Your task to perform on an android device: toggle show notifications on the lock screen Image 0: 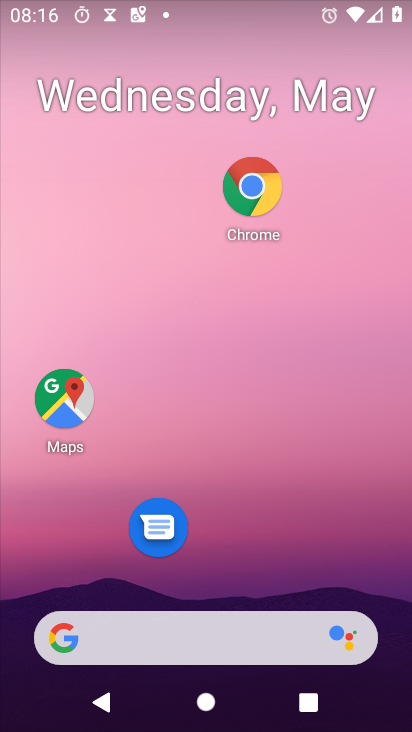
Step 0: drag from (286, 536) to (403, 55)
Your task to perform on an android device: toggle show notifications on the lock screen Image 1: 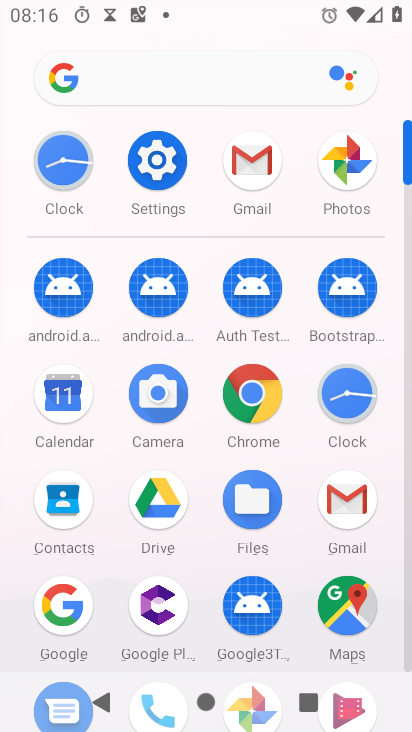
Step 1: click (155, 163)
Your task to perform on an android device: toggle show notifications on the lock screen Image 2: 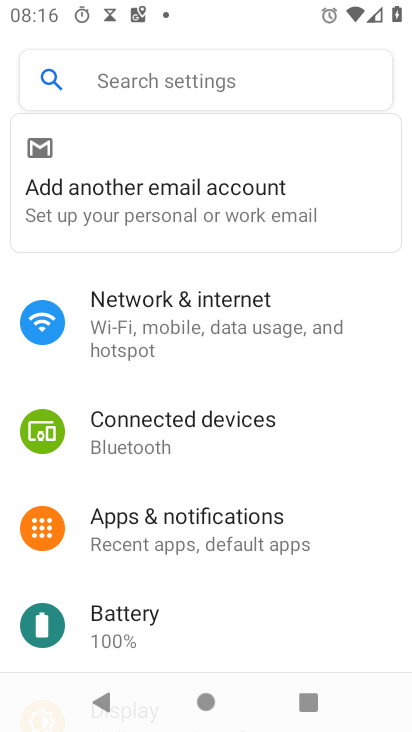
Step 2: click (198, 525)
Your task to perform on an android device: toggle show notifications on the lock screen Image 3: 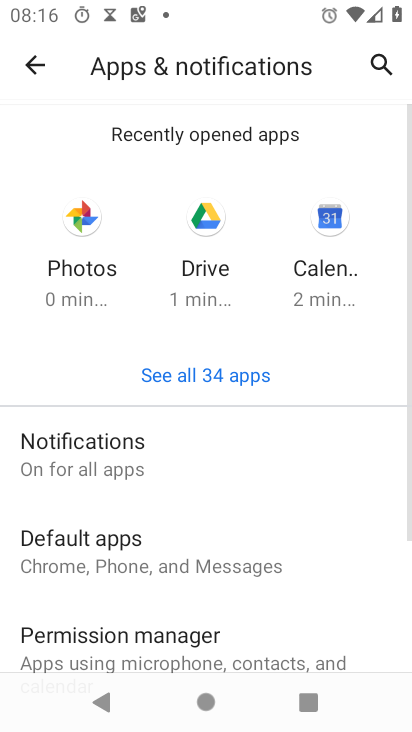
Step 3: click (90, 445)
Your task to perform on an android device: toggle show notifications on the lock screen Image 4: 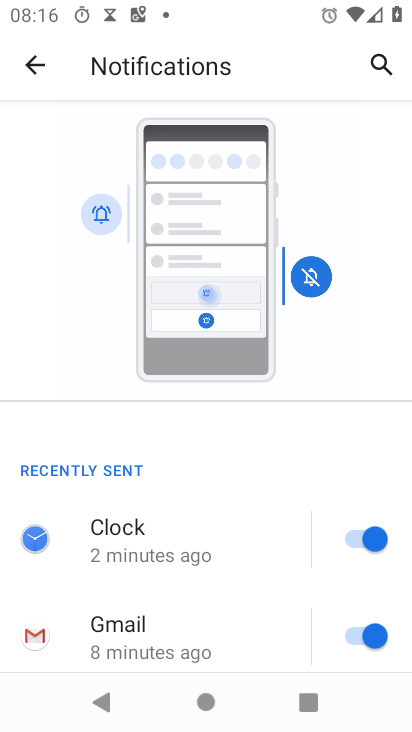
Step 4: drag from (266, 547) to (337, 184)
Your task to perform on an android device: toggle show notifications on the lock screen Image 5: 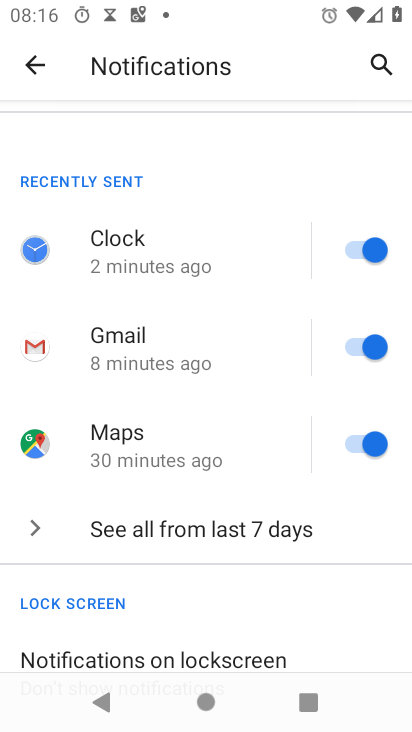
Step 5: drag from (275, 606) to (283, 204)
Your task to perform on an android device: toggle show notifications on the lock screen Image 6: 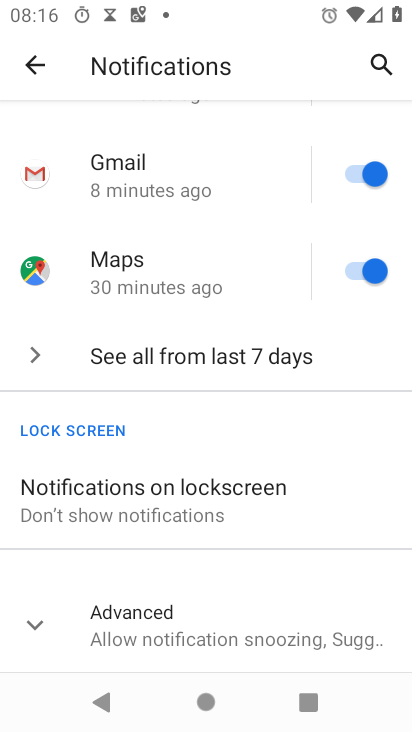
Step 6: click (106, 510)
Your task to perform on an android device: toggle show notifications on the lock screen Image 7: 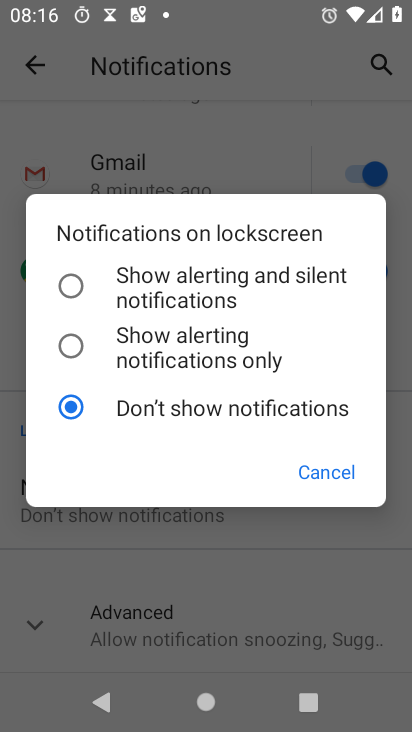
Step 7: click (128, 331)
Your task to perform on an android device: toggle show notifications on the lock screen Image 8: 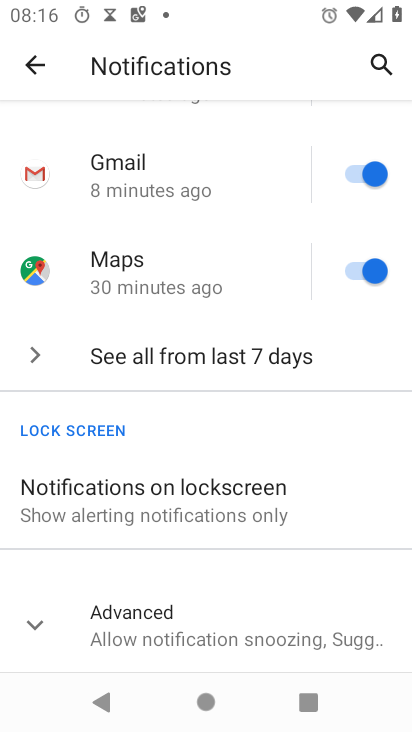
Step 8: task complete